Your task to perform on an android device: search for starred emails in the gmail app Image 0: 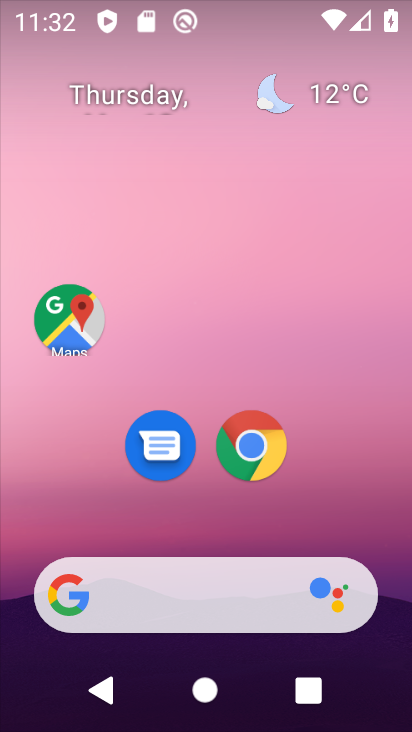
Step 0: drag from (233, 594) to (212, 88)
Your task to perform on an android device: search for starred emails in the gmail app Image 1: 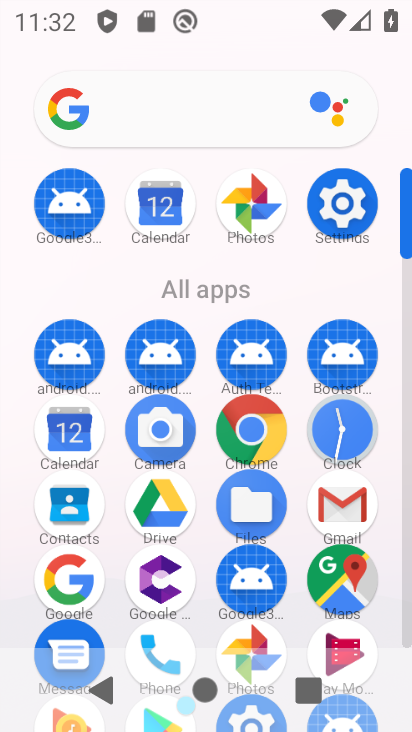
Step 1: click (342, 497)
Your task to perform on an android device: search for starred emails in the gmail app Image 2: 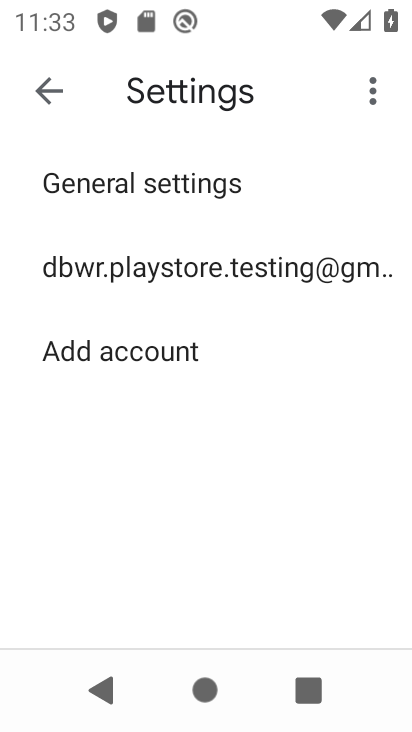
Step 2: click (38, 81)
Your task to perform on an android device: search for starred emails in the gmail app Image 3: 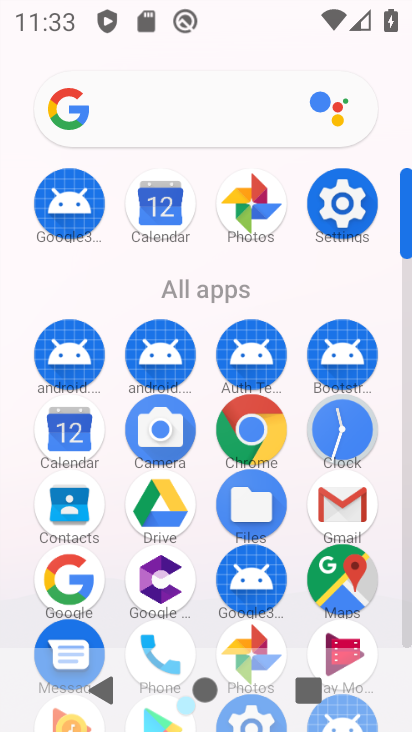
Step 3: click (324, 488)
Your task to perform on an android device: search for starred emails in the gmail app Image 4: 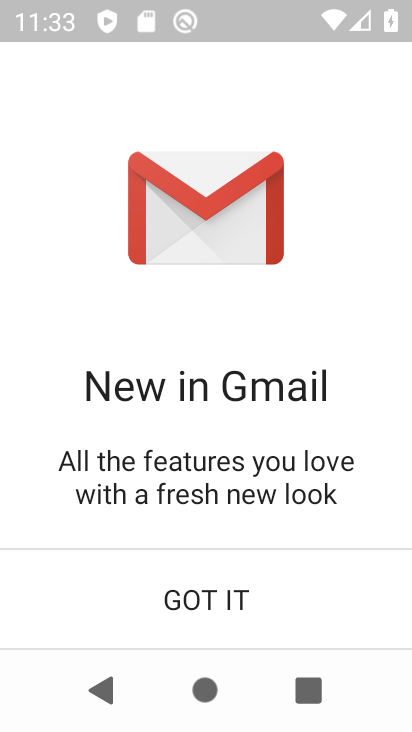
Step 4: click (184, 614)
Your task to perform on an android device: search for starred emails in the gmail app Image 5: 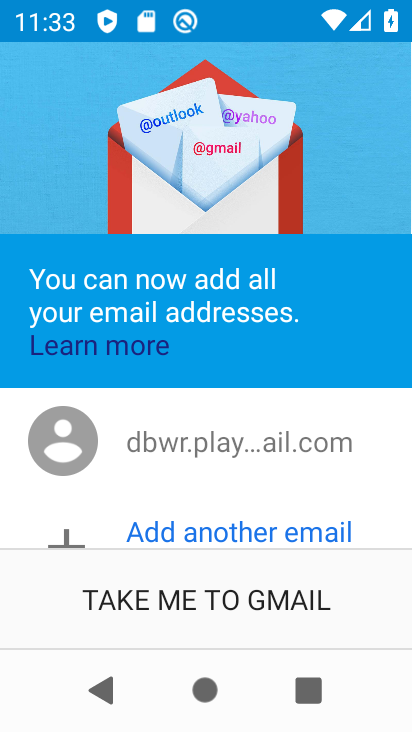
Step 5: click (181, 585)
Your task to perform on an android device: search for starred emails in the gmail app Image 6: 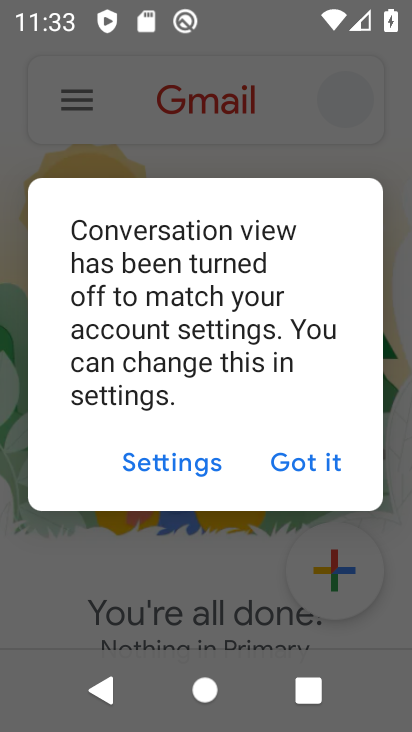
Step 6: click (305, 474)
Your task to perform on an android device: search for starred emails in the gmail app Image 7: 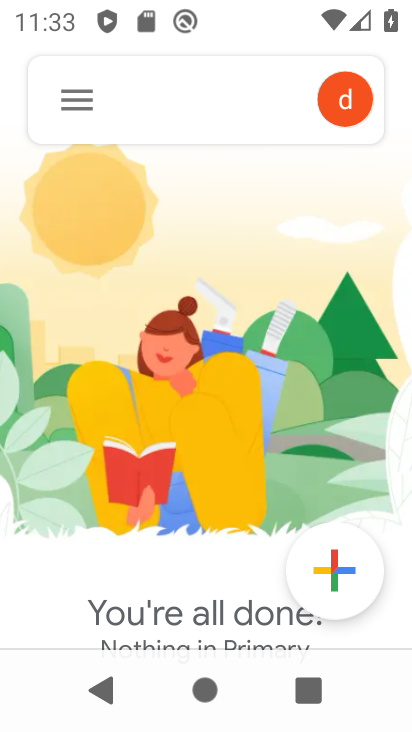
Step 7: click (59, 94)
Your task to perform on an android device: search for starred emails in the gmail app Image 8: 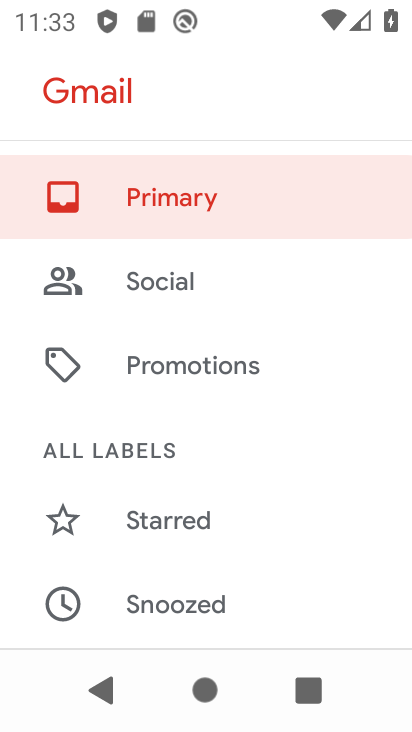
Step 8: click (162, 512)
Your task to perform on an android device: search for starred emails in the gmail app Image 9: 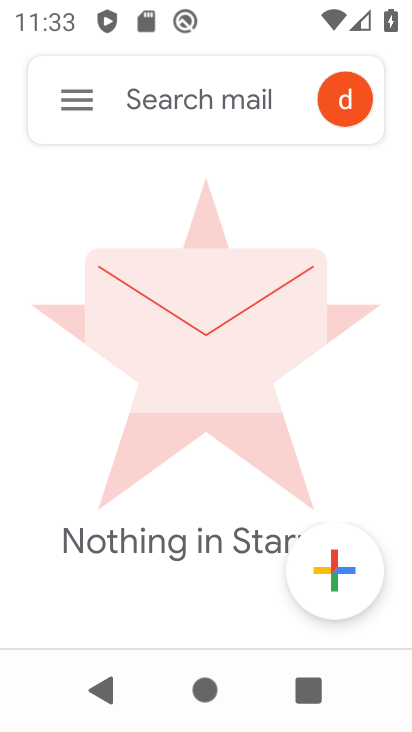
Step 9: task complete